Your task to perform on an android device: turn off notifications in google photos Image 0: 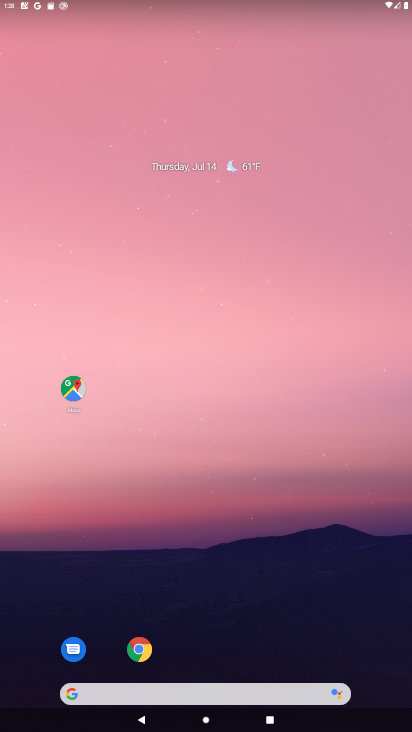
Step 0: drag from (189, 705) to (193, 154)
Your task to perform on an android device: turn off notifications in google photos Image 1: 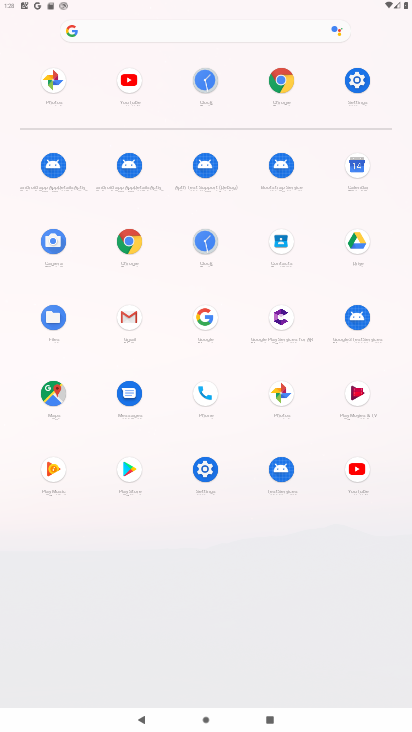
Step 1: click (283, 381)
Your task to perform on an android device: turn off notifications in google photos Image 2: 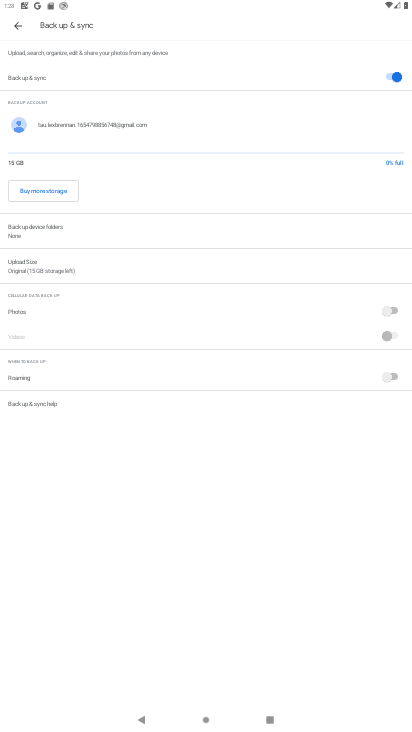
Step 2: press back button
Your task to perform on an android device: turn off notifications in google photos Image 3: 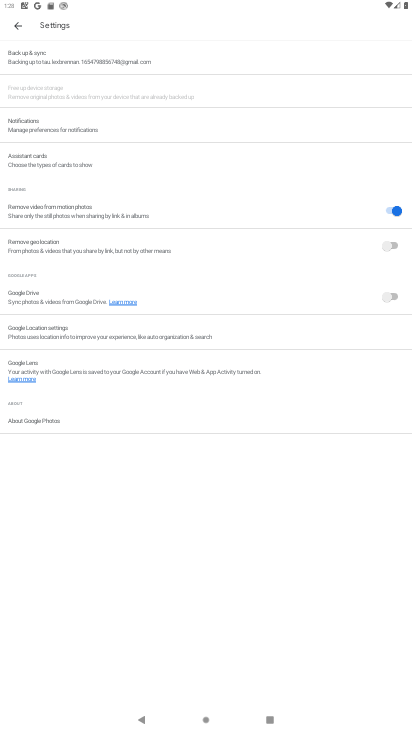
Step 3: click (78, 133)
Your task to perform on an android device: turn off notifications in google photos Image 4: 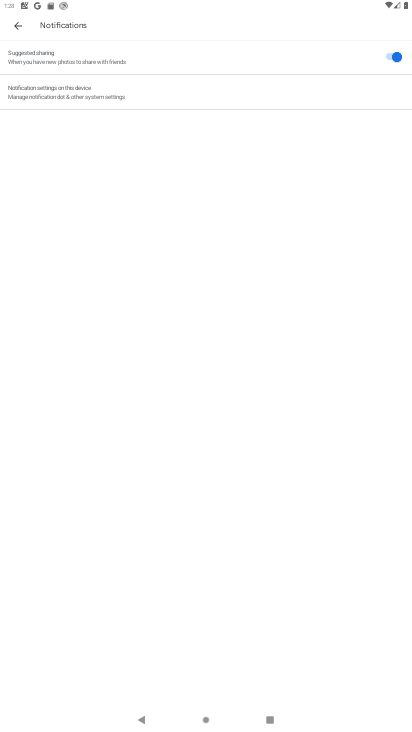
Step 4: click (387, 53)
Your task to perform on an android device: turn off notifications in google photos Image 5: 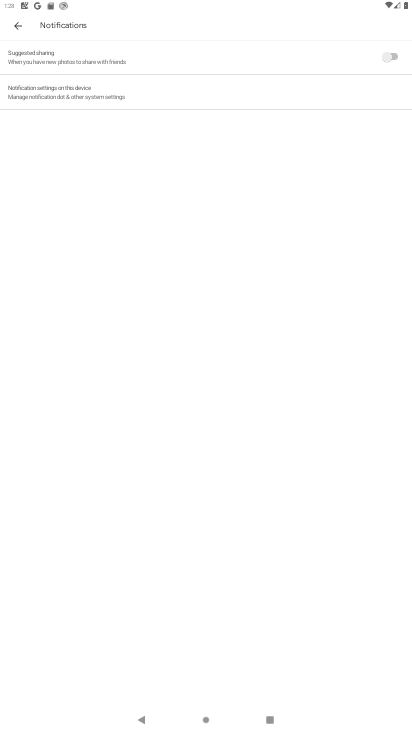
Step 5: task complete